Your task to perform on an android device: check storage Image 0: 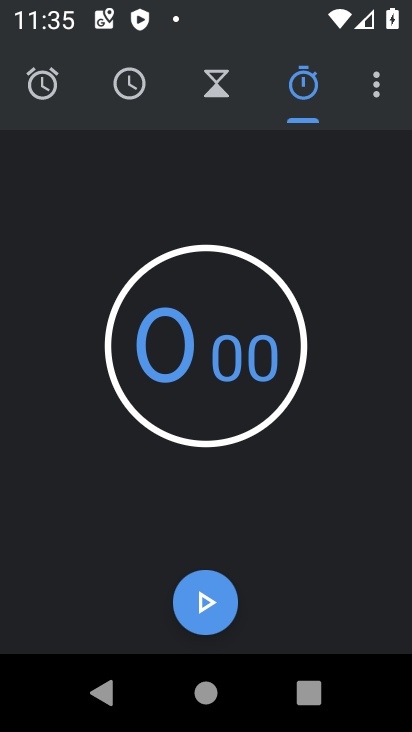
Step 0: press home button
Your task to perform on an android device: check storage Image 1: 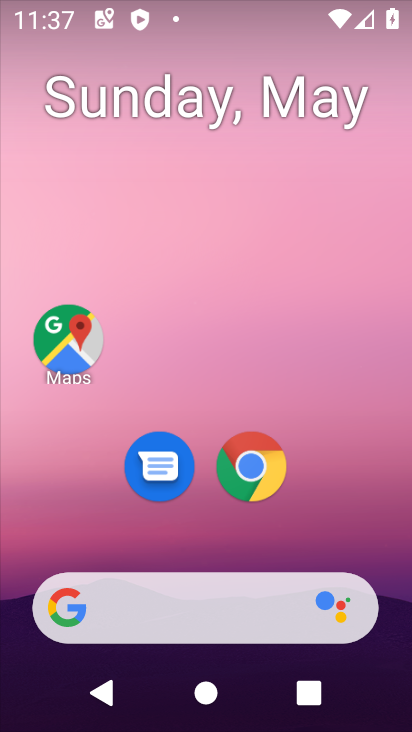
Step 1: drag from (385, 597) to (339, 38)
Your task to perform on an android device: check storage Image 2: 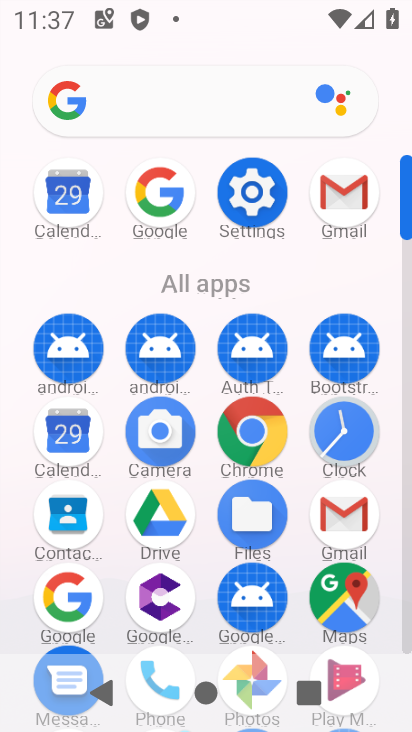
Step 2: click (232, 197)
Your task to perform on an android device: check storage Image 3: 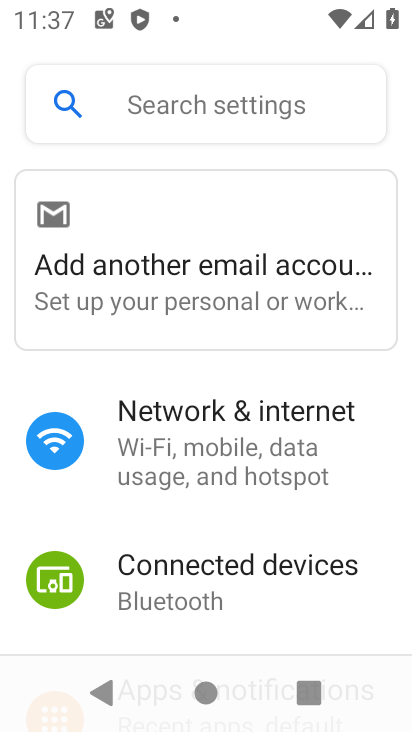
Step 3: drag from (206, 601) to (247, 115)
Your task to perform on an android device: check storage Image 4: 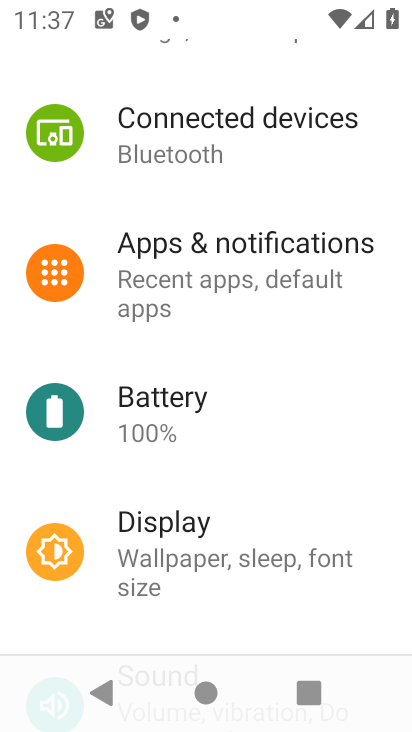
Step 4: drag from (223, 558) to (296, 126)
Your task to perform on an android device: check storage Image 5: 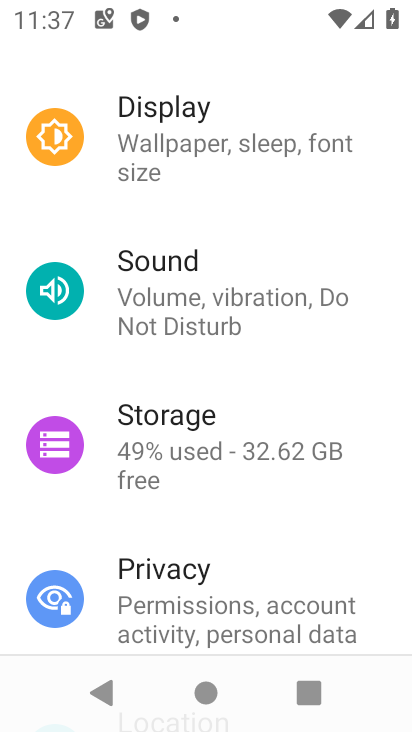
Step 5: click (230, 439)
Your task to perform on an android device: check storage Image 6: 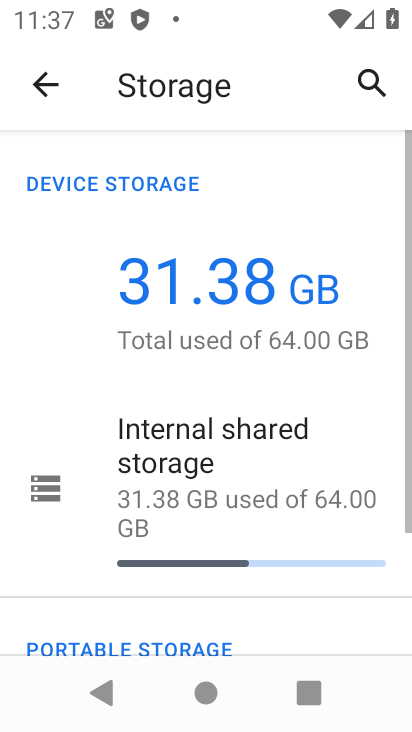
Step 6: click (176, 460)
Your task to perform on an android device: check storage Image 7: 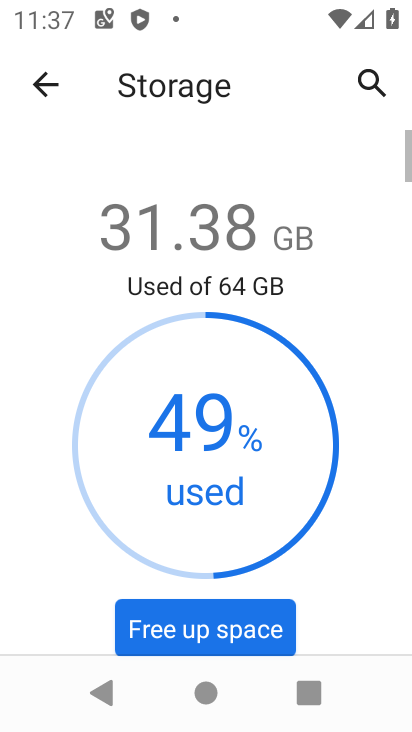
Step 7: task complete